Your task to perform on an android device: turn notification dots off Image 0: 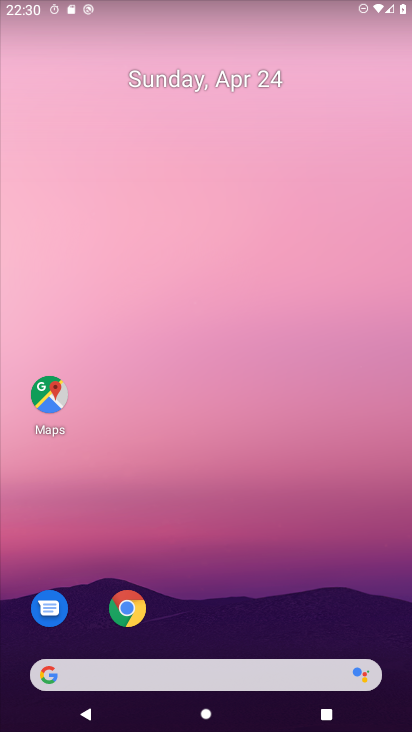
Step 0: drag from (340, 596) to (322, 27)
Your task to perform on an android device: turn notification dots off Image 1: 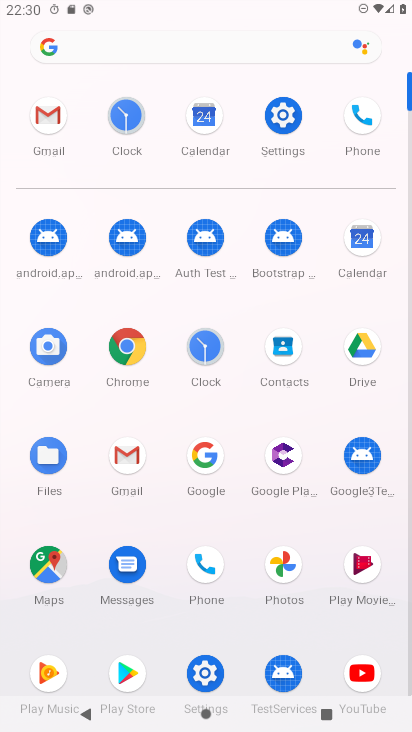
Step 1: click (289, 115)
Your task to perform on an android device: turn notification dots off Image 2: 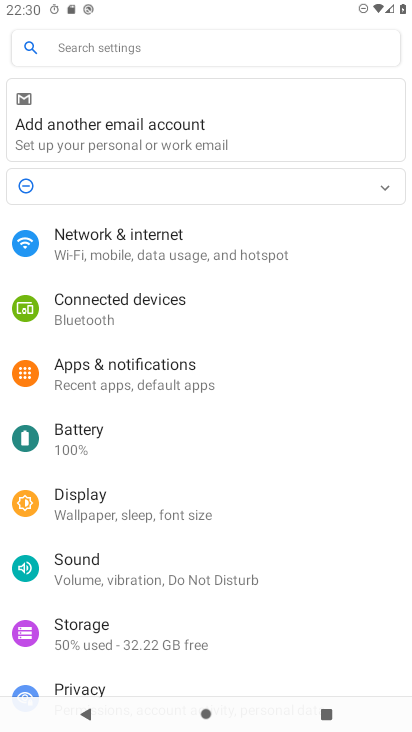
Step 2: click (184, 353)
Your task to perform on an android device: turn notification dots off Image 3: 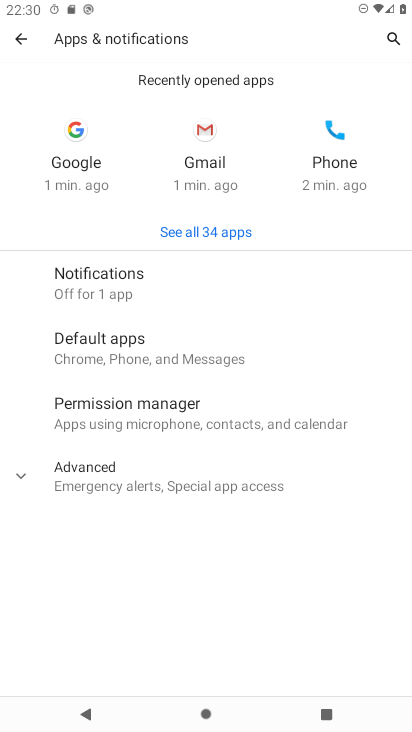
Step 3: click (171, 284)
Your task to perform on an android device: turn notification dots off Image 4: 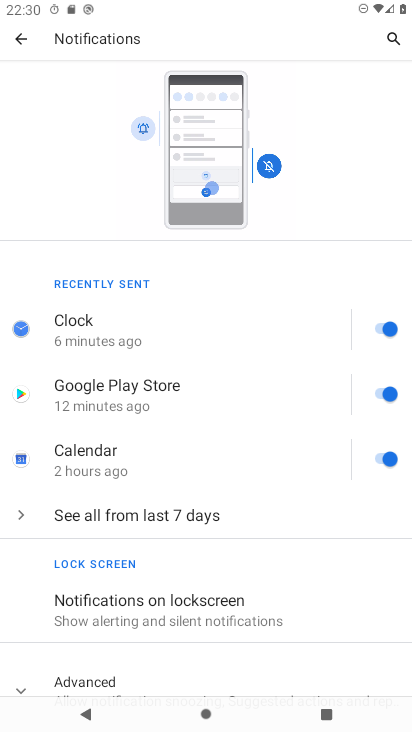
Step 4: drag from (189, 556) to (210, 236)
Your task to perform on an android device: turn notification dots off Image 5: 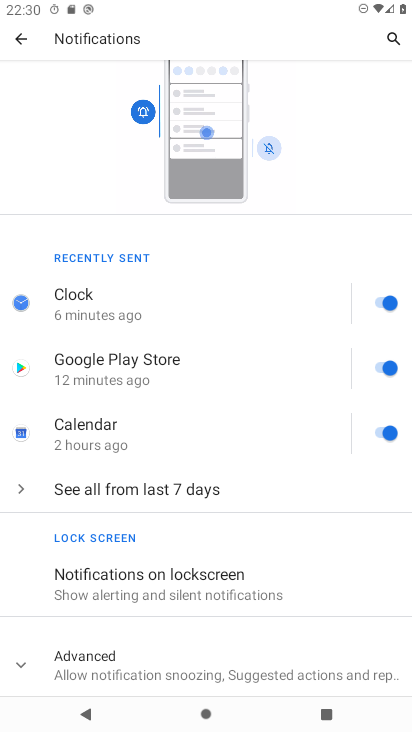
Step 5: click (22, 662)
Your task to perform on an android device: turn notification dots off Image 6: 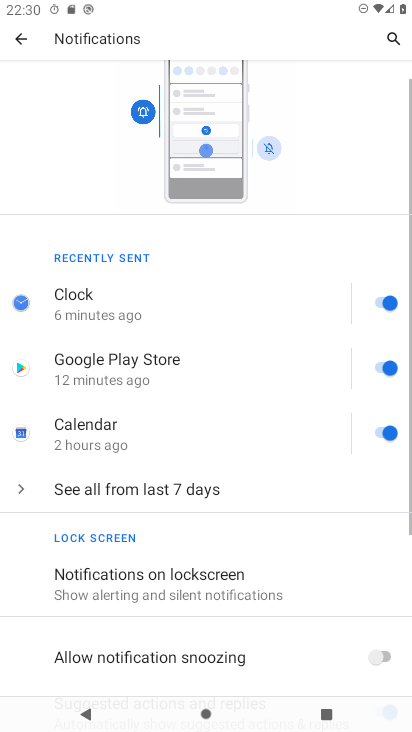
Step 6: drag from (231, 567) to (233, 157)
Your task to perform on an android device: turn notification dots off Image 7: 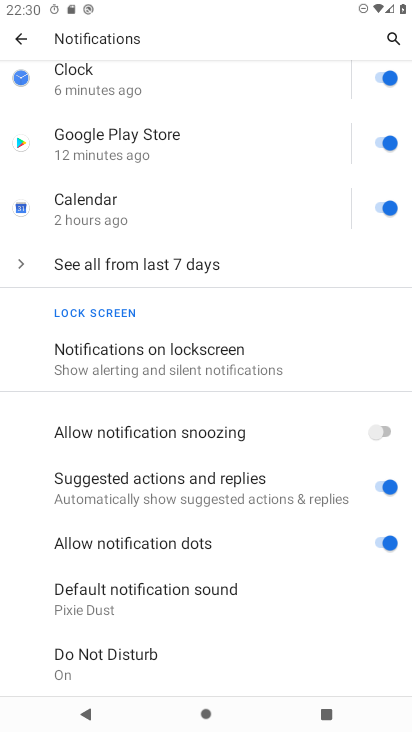
Step 7: click (374, 543)
Your task to perform on an android device: turn notification dots off Image 8: 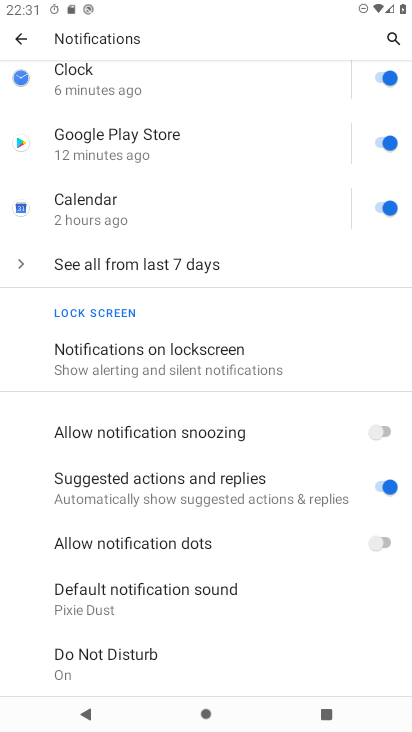
Step 8: task complete